Your task to perform on an android device: check out phone information Image 0: 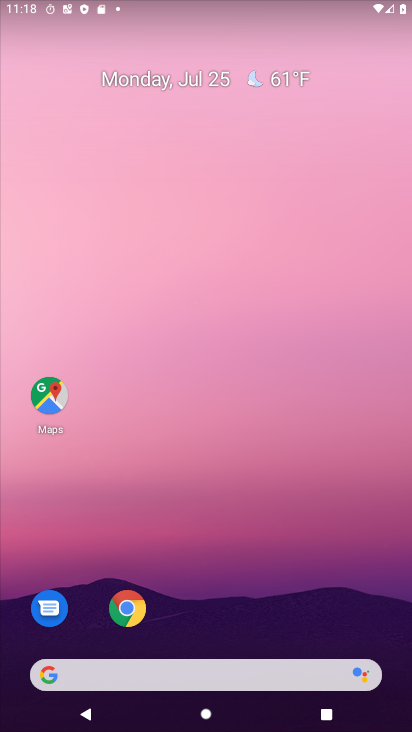
Step 0: drag from (256, 629) to (308, 3)
Your task to perform on an android device: check out phone information Image 1: 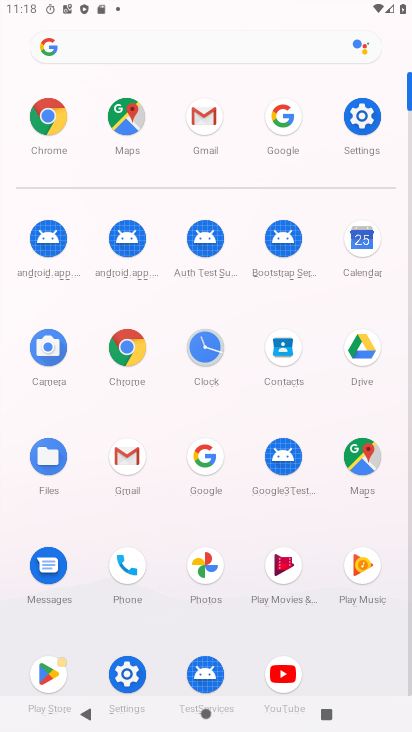
Step 1: click (366, 132)
Your task to perform on an android device: check out phone information Image 2: 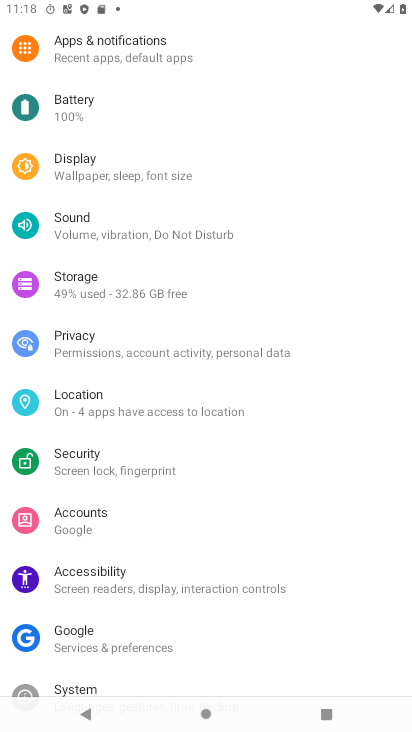
Step 2: drag from (182, 611) to (182, 60)
Your task to perform on an android device: check out phone information Image 3: 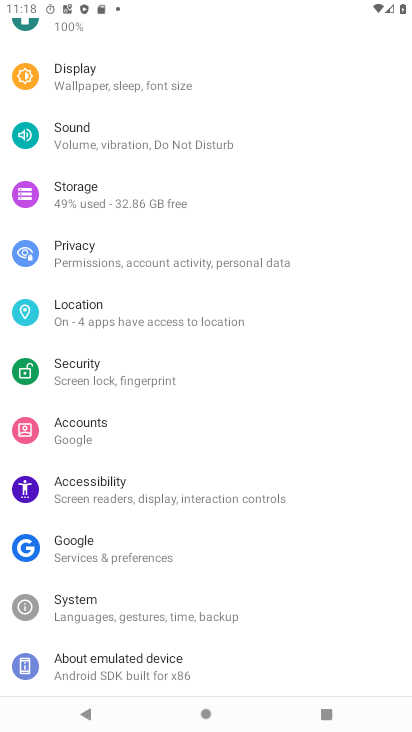
Step 3: click (100, 662)
Your task to perform on an android device: check out phone information Image 4: 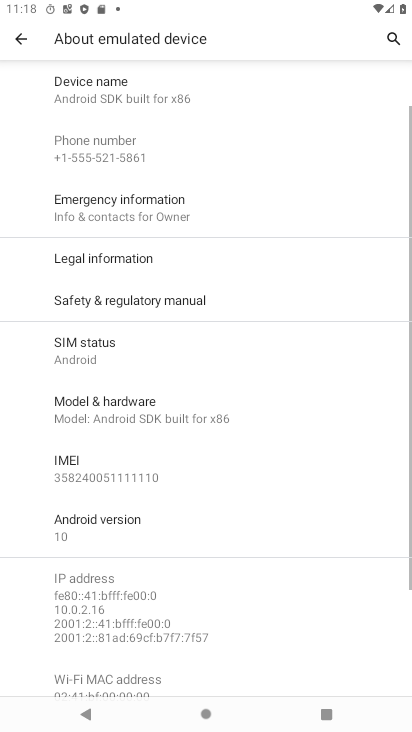
Step 4: task complete